Your task to perform on an android device: turn off airplane mode Image 0: 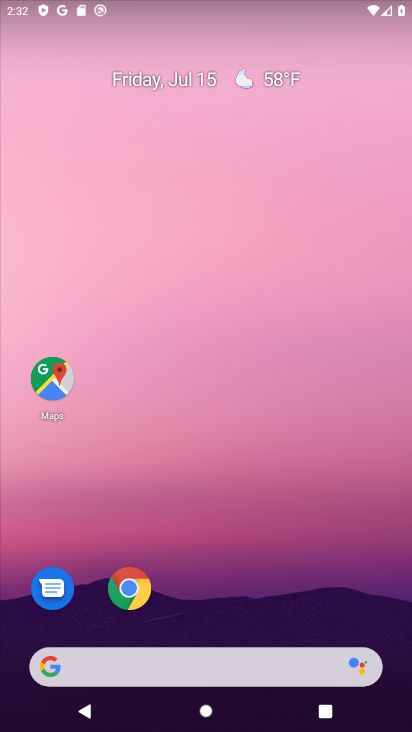
Step 0: drag from (320, 637) to (334, 31)
Your task to perform on an android device: turn off airplane mode Image 1: 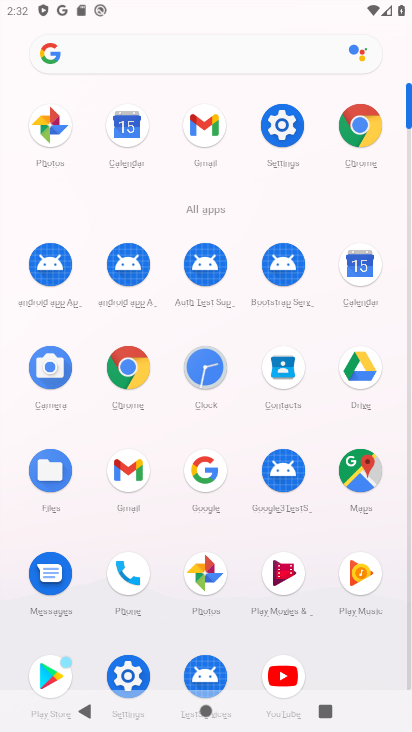
Step 1: click (273, 128)
Your task to perform on an android device: turn off airplane mode Image 2: 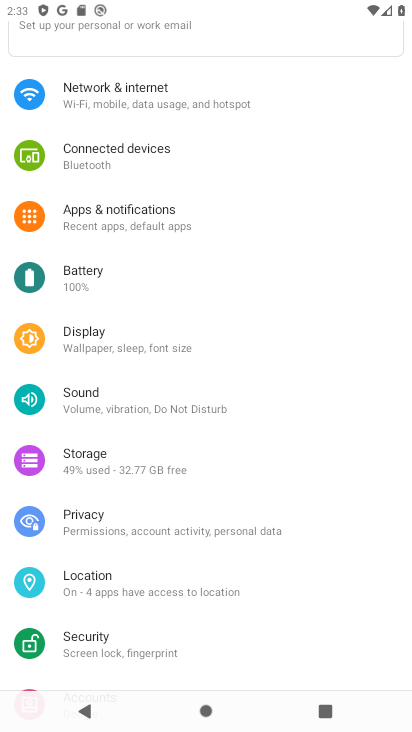
Step 2: click (85, 106)
Your task to perform on an android device: turn off airplane mode Image 3: 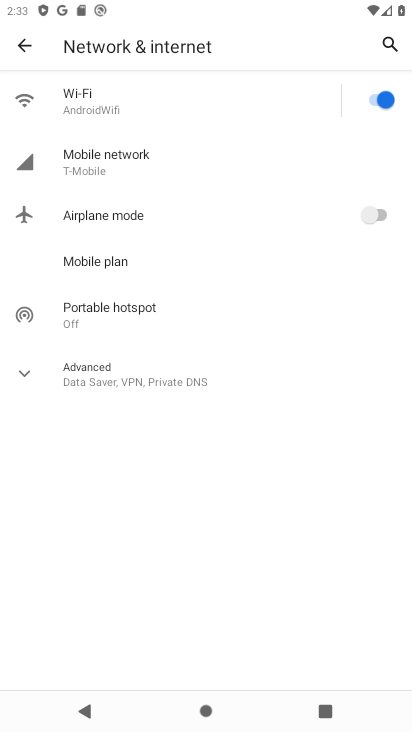
Step 3: task complete